Your task to perform on an android device: toggle pop-ups in chrome Image 0: 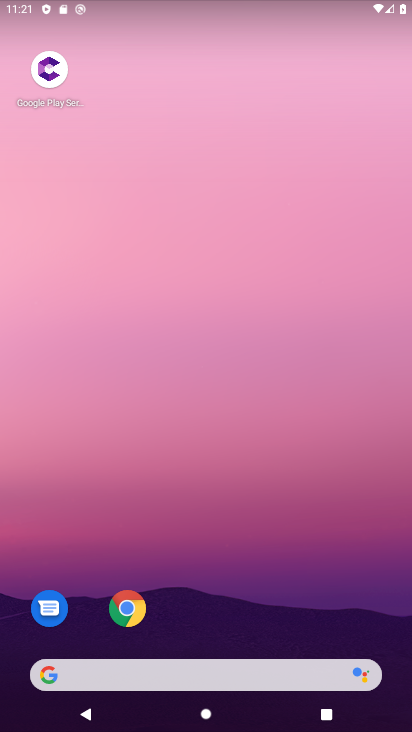
Step 0: click (130, 606)
Your task to perform on an android device: toggle pop-ups in chrome Image 1: 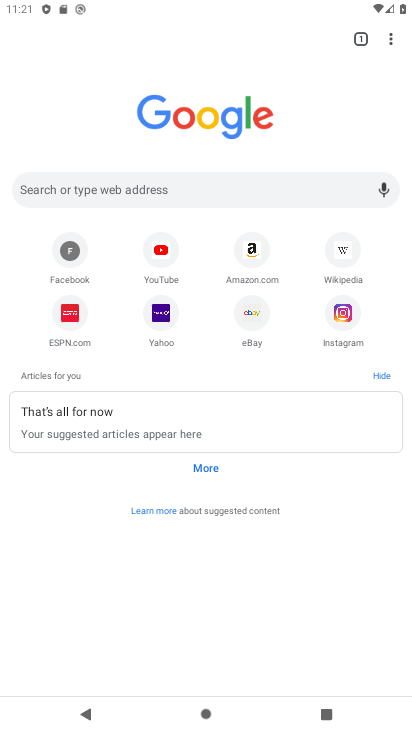
Step 1: click (386, 41)
Your task to perform on an android device: toggle pop-ups in chrome Image 2: 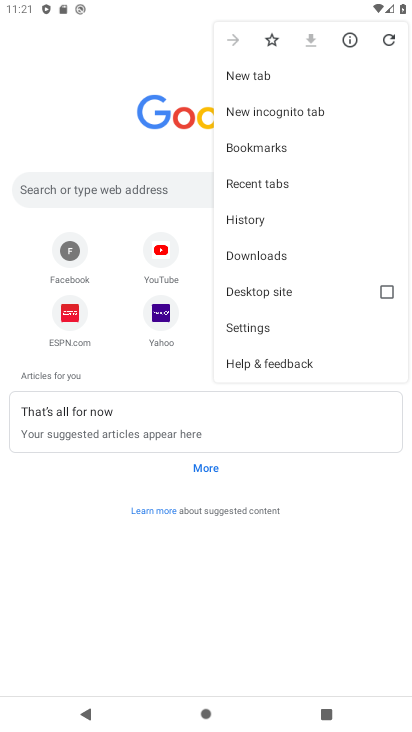
Step 2: click (259, 334)
Your task to perform on an android device: toggle pop-ups in chrome Image 3: 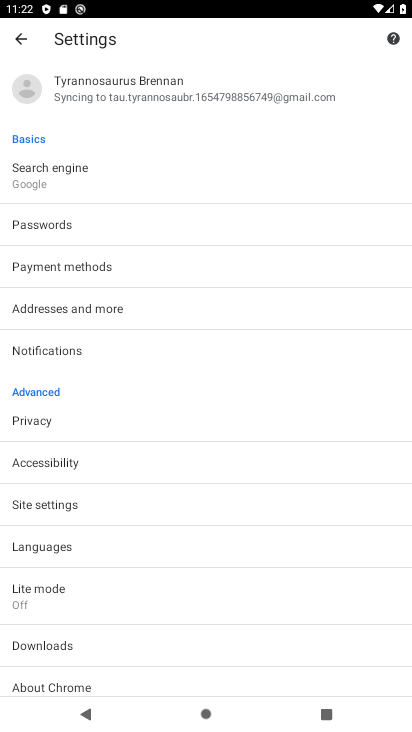
Step 3: click (49, 501)
Your task to perform on an android device: toggle pop-ups in chrome Image 4: 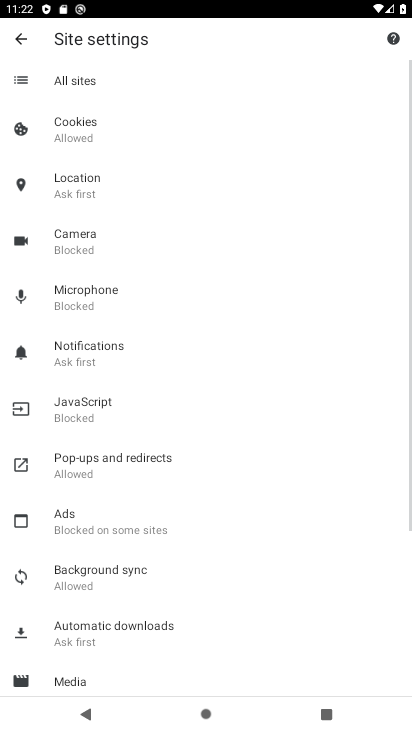
Step 4: click (86, 480)
Your task to perform on an android device: toggle pop-ups in chrome Image 5: 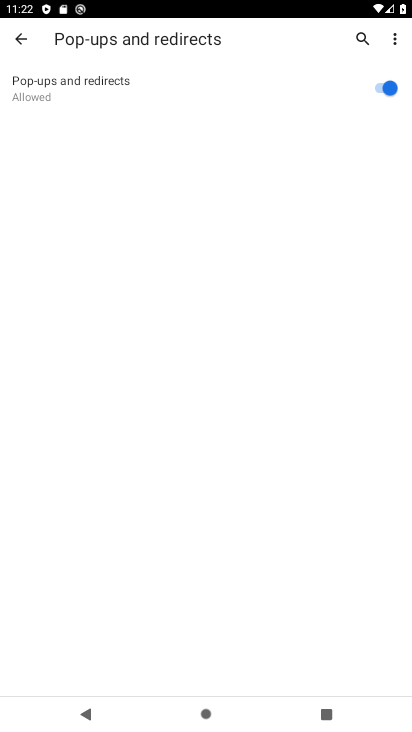
Step 5: click (379, 95)
Your task to perform on an android device: toggle pop-ups in chrome Image 6: 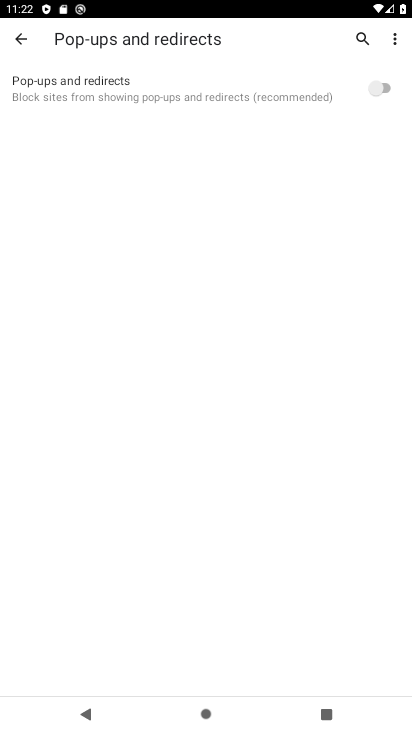
Step 6: task complete